Your task to perform on an android device: Open settings on Google Maps Image 0: 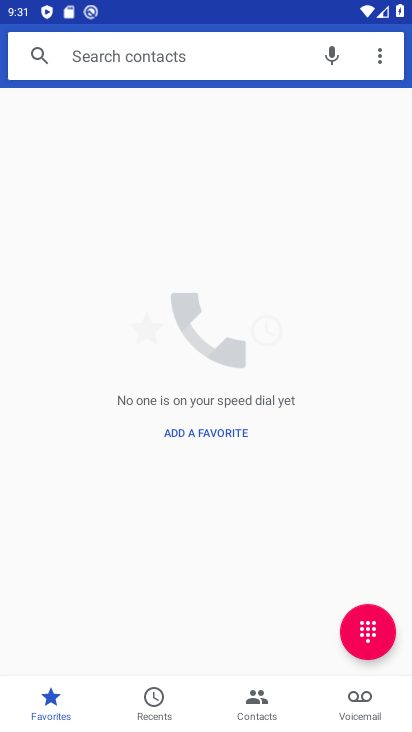
Step 0: press home button
Your task to perform on an android device: Open settings on Google Maps Image 1: 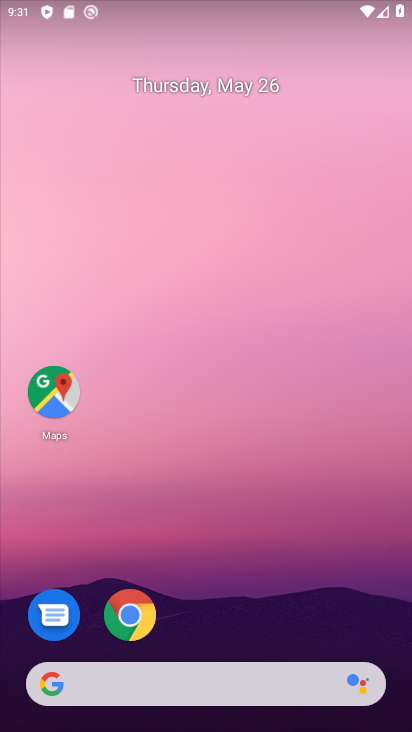
Step 1: click (48, 398)
Your task to perform on an android device: Open settings on Google Maps Image 2: 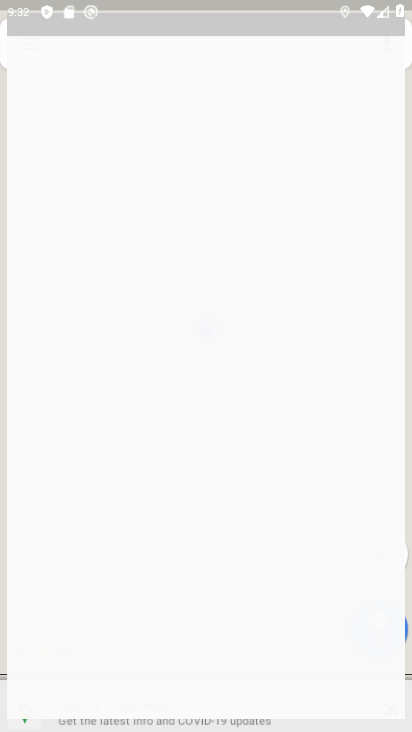
Step 2: click (31, 59)
Your task to perform on an android device: Open settings on Google Maps Image 3: 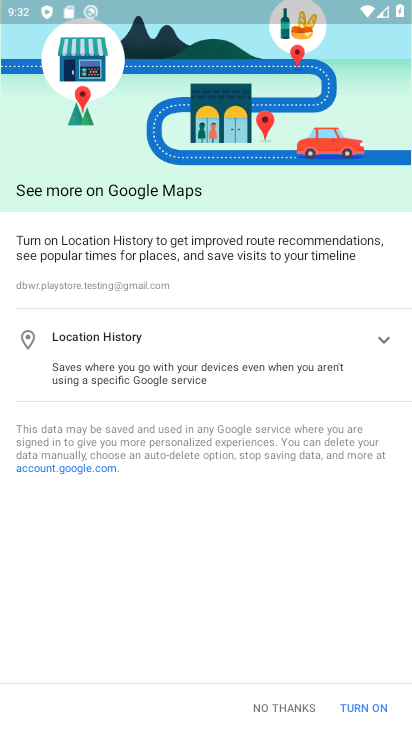
Step 3: click (301, 714)
Your task to perform on an android device: Open settings on Google Maps Image 4: 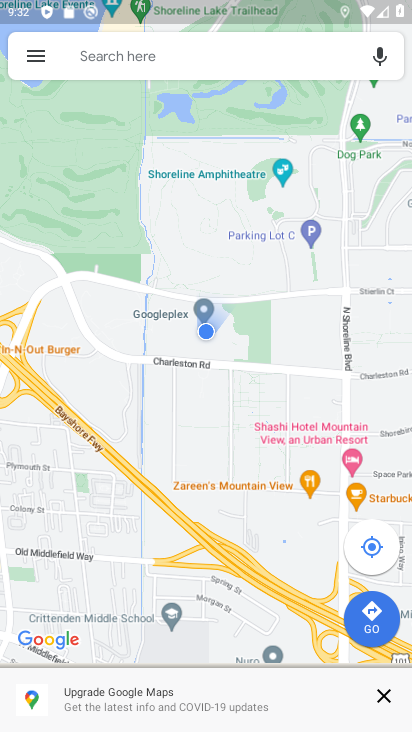
Step 4: click (31, 65)
Your task to perform on an android device: Open settings on Google Maps Image 5: 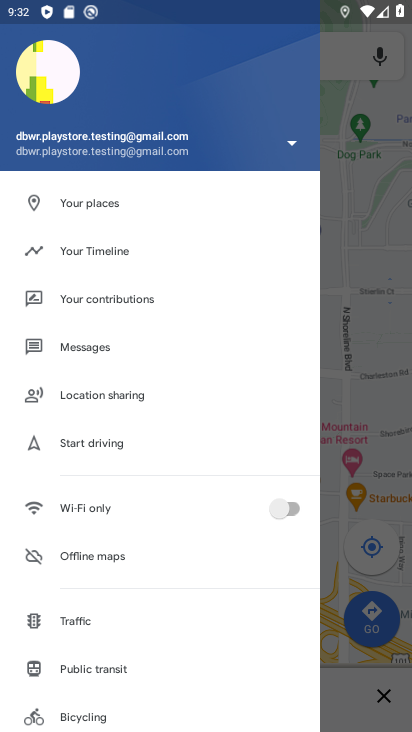
Step 5: drag from (188, 645) to (164, 294)
Your task to perform on an android device: Open settings on Google Maps Image 6: 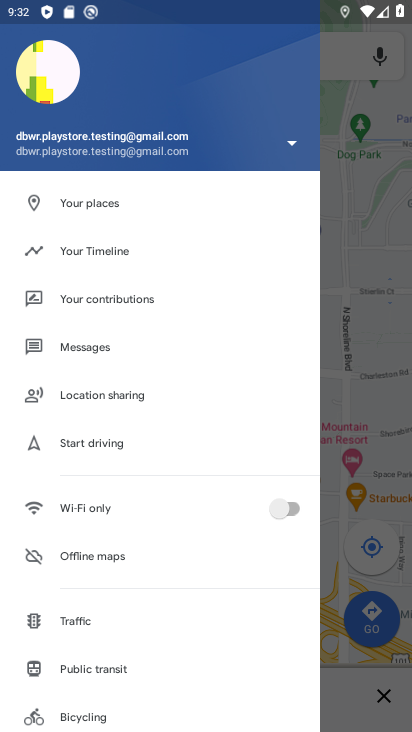
Step 6: drag from (172, 694) to (150, 269)
Your task to perform on an android device: Open settings on Google Maps Image 7: 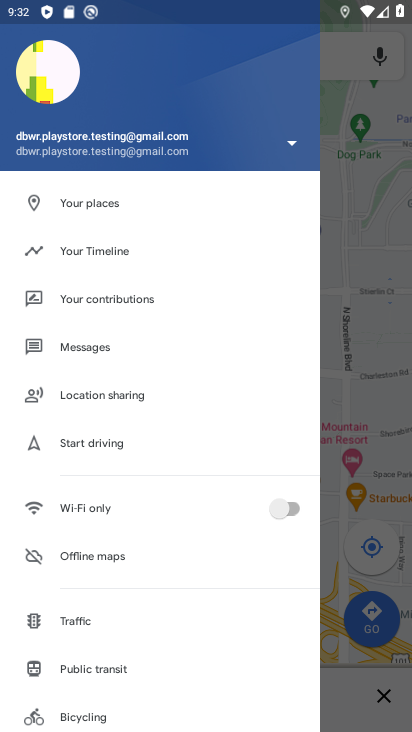
Step 7: drag from (173, 705) to (182, 307)
Your task to perform on an android device: Open settings on Google Maps Image 8: 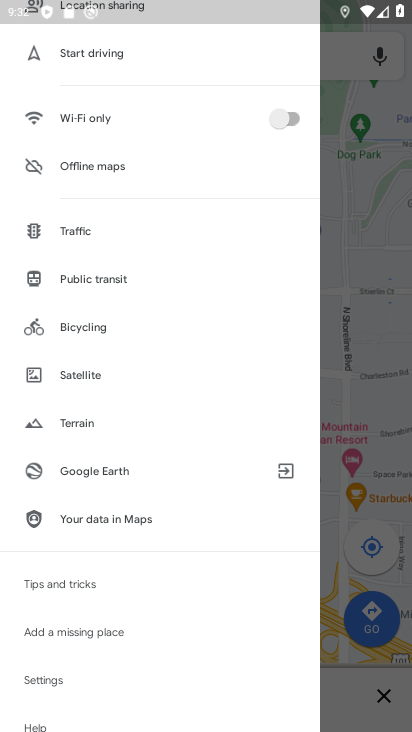
Step 8: click (55, 679)
Your task to perform on an android device: Open settings on Google Maps Image 9: 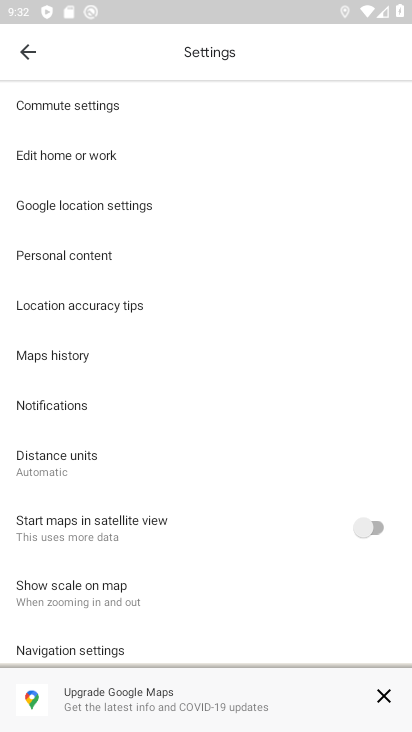
Step 9: task complete